Your task to perform on an android device: Go to battery settings Image 0: 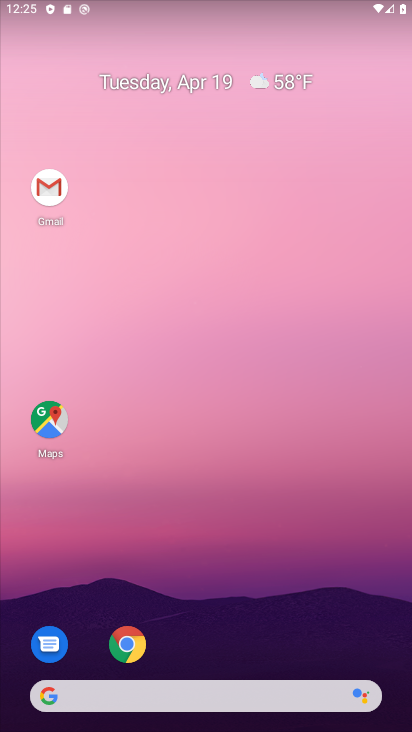
Step 0: drag from (220, 540) to (249, 187)
Your task to perform on an android device: Go to battery settings Image 1: 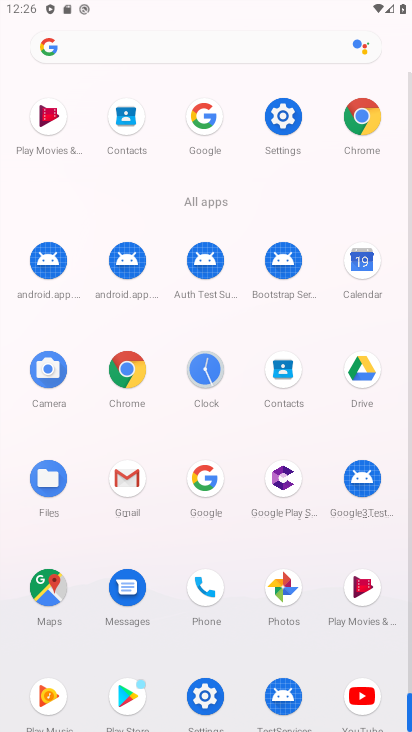
Step 1: click (208, 683)
Your task to perform on an android device: Go to battery settings Image 2: 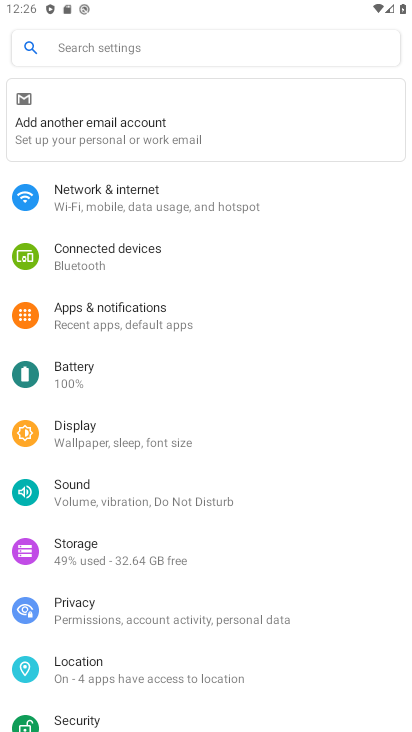
Step 2: click (117, 378)
Your task to perform on an android device: Go to battery settings Image 3: 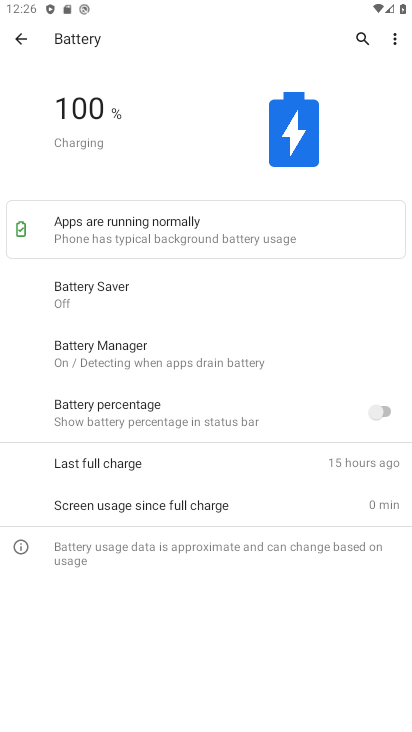
Step 3: task complete